Your task to perform on an android device: all mails in gmail Image 0: 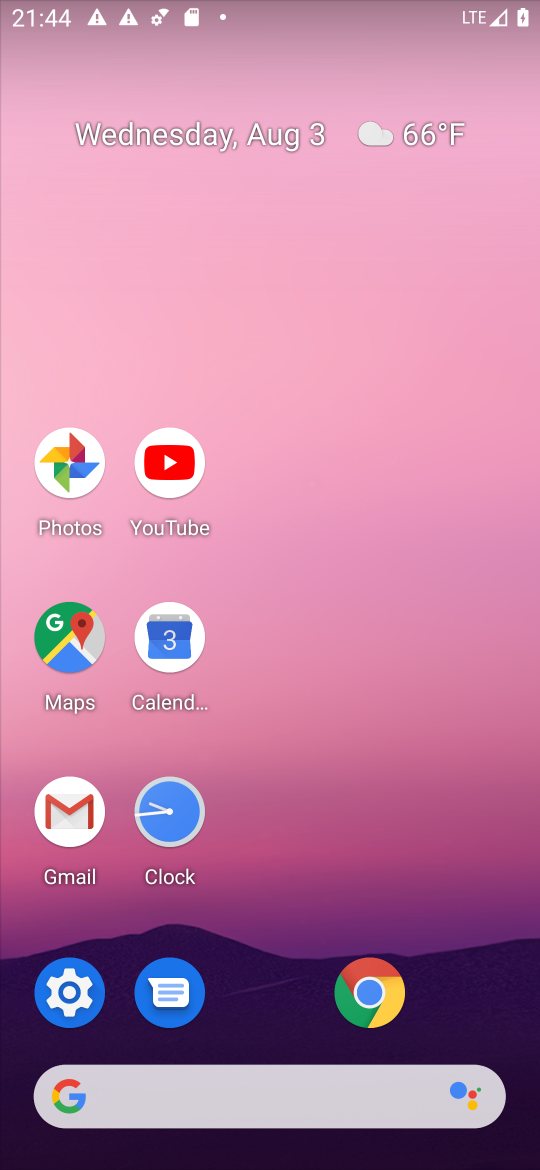
Step 0: click (68, 800)
Your task to perform on an android device: all mails in gmail Image 1: 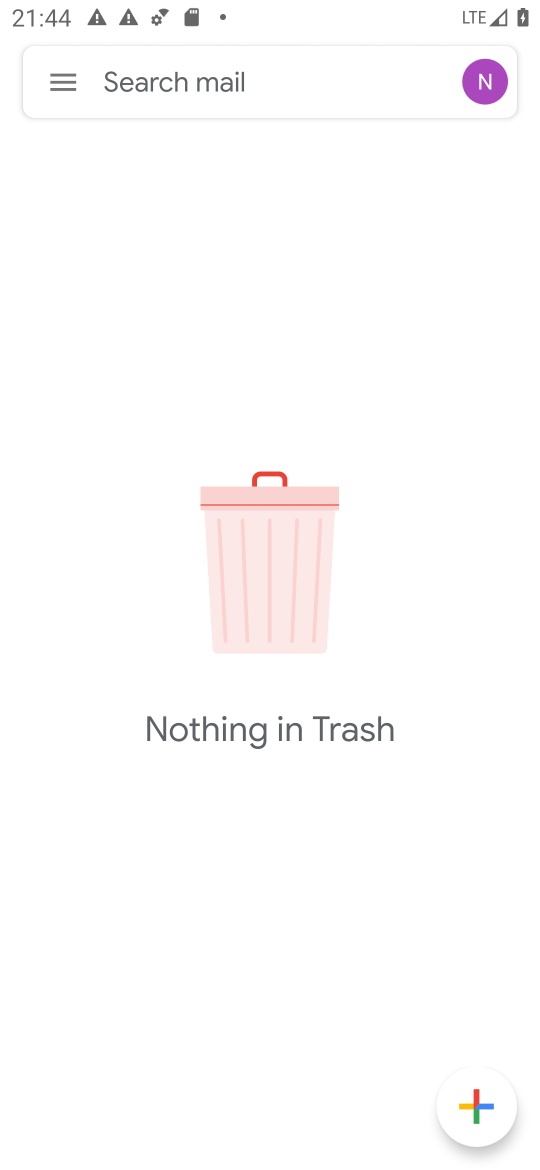
Step 1: click (62, 65)
Your task to perform on an android device: all mails in gmail Image 2: 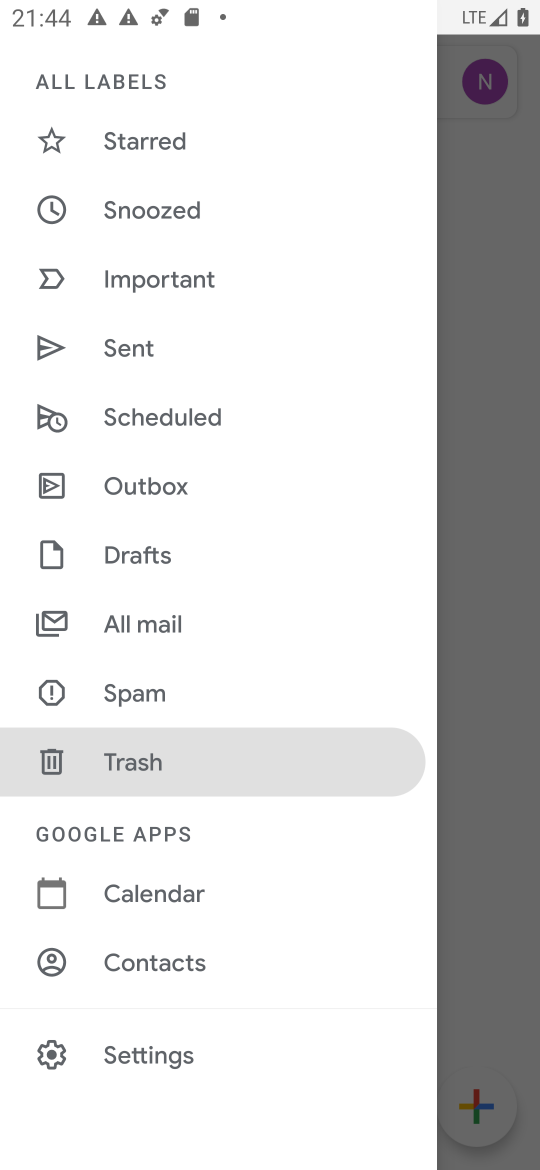
Step 2: click (144, 621)
Your task to perform on an android device: all mails in gmail Image 3: 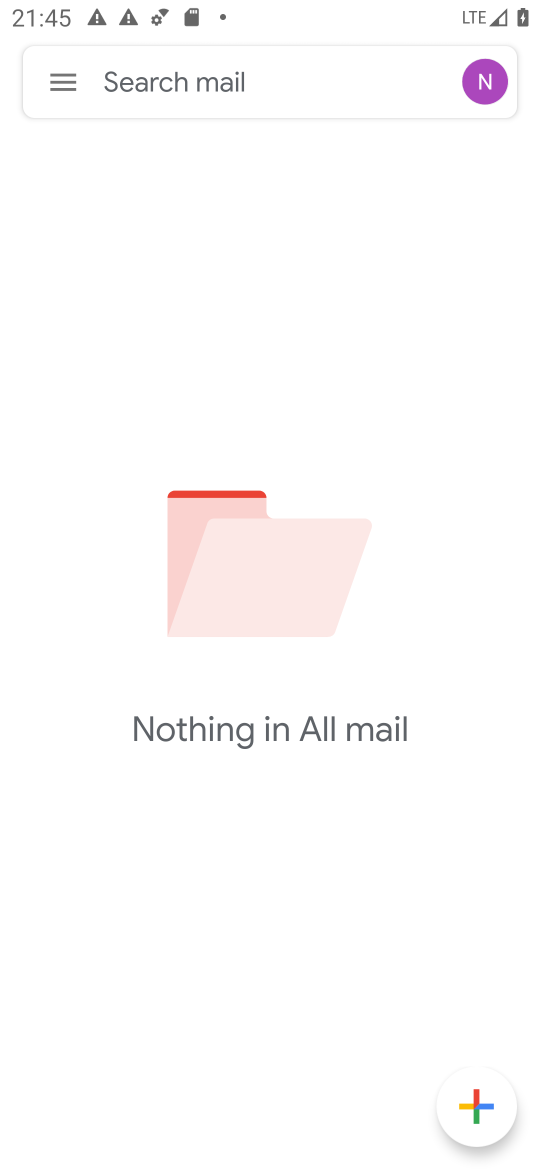
Step 3: task complete